Your task to perform on an android device: Show me the alarms in the clock app Image 0: 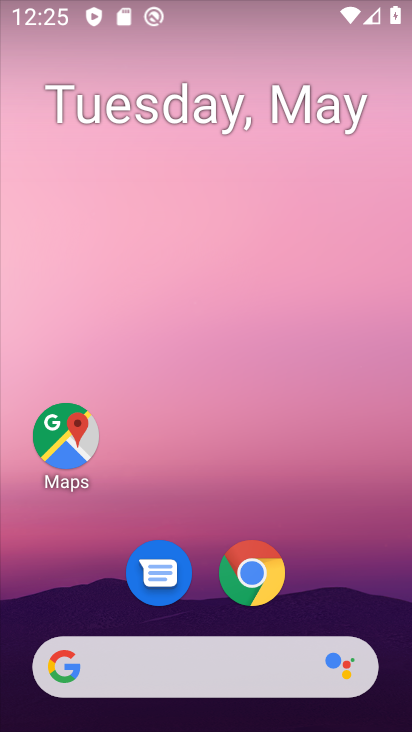
Step 0: drag from (315, 581) to (365, 127)
Your task to perform on an android device: Show me the alarms in the clock app Image 1: 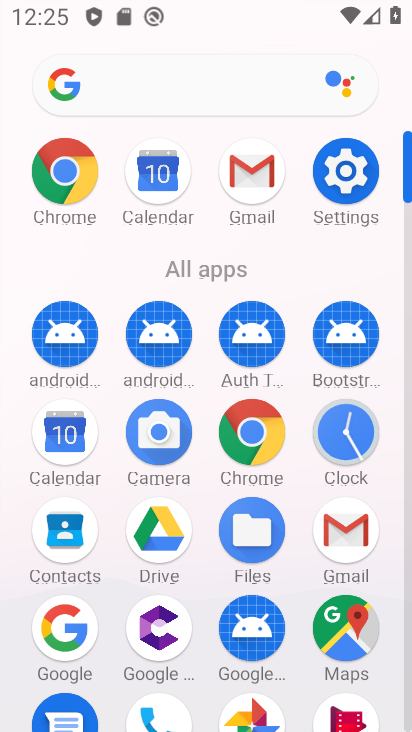
Step 1: click (377, 443)
Your task to perform on an android device: Show me the alarms in the clock app Image 2: 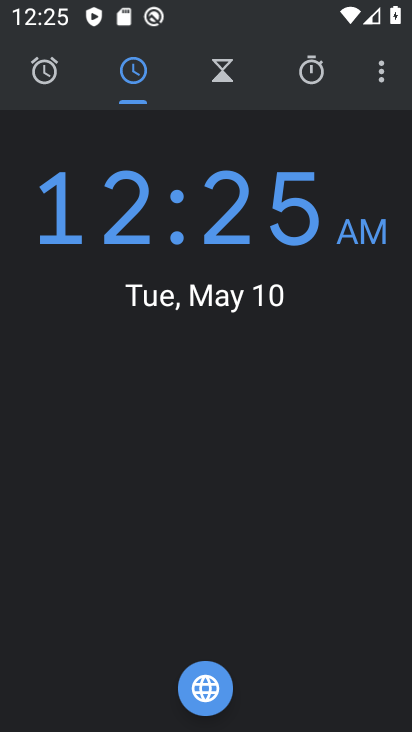
Step 2: click (75, 66)
Your task to perform on an android device: Show me the alarms in the clock app Image 3: 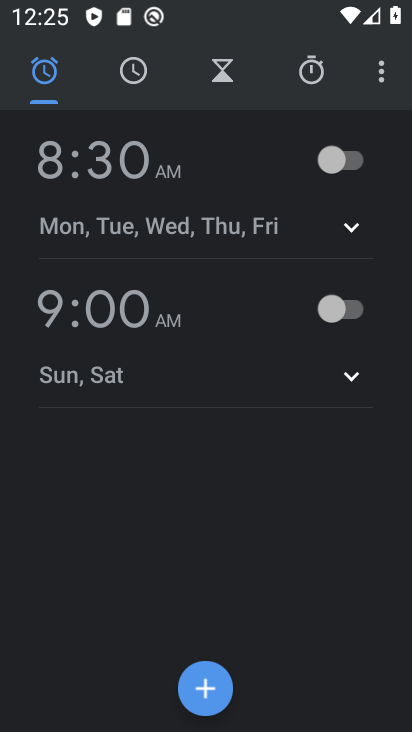
Step 3: click (202, 204)
Your task to perform on an android device: Show me the alarms in the clock app Image 4: 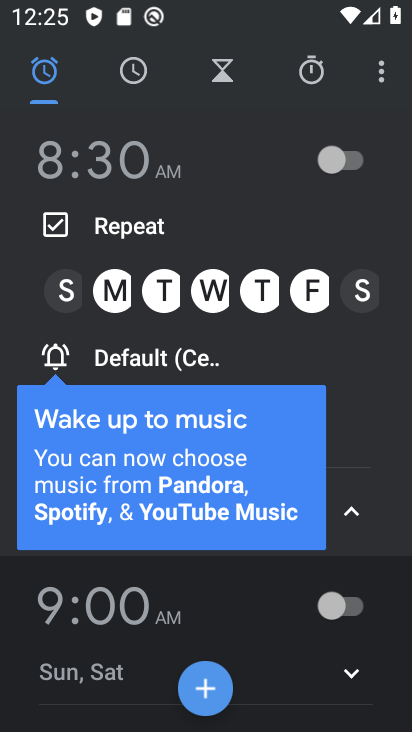
Step 4: task complete